Your task to perform on an android device: What's the weather going to be this weekend? Image 0: 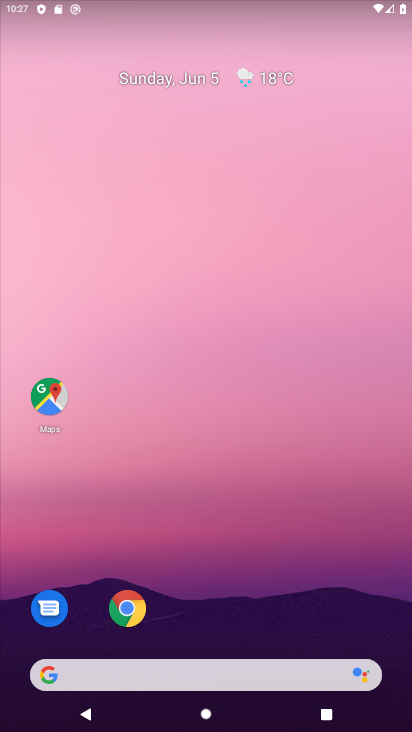
Step 0: click (147, 669)
Your task to perform on an android device: What's the weather going to be this weekend? Image 1: 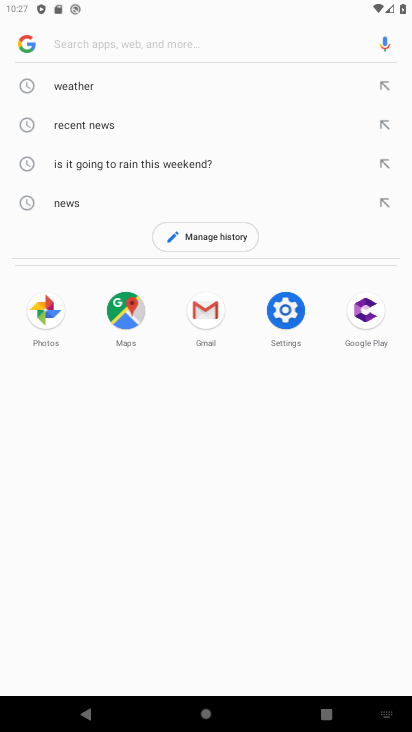
Step 1: type "what's the weather going to be this weekend"
Your task to perform on an android device: What's the weather going to be this weekend? Image 2: 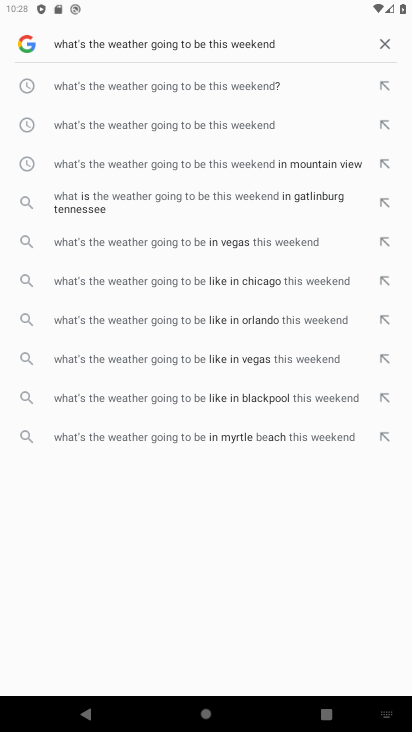
Step 2: click (248, 88)
Your task to perform on an android device: What's the weather going to be this weekend? Image 3: 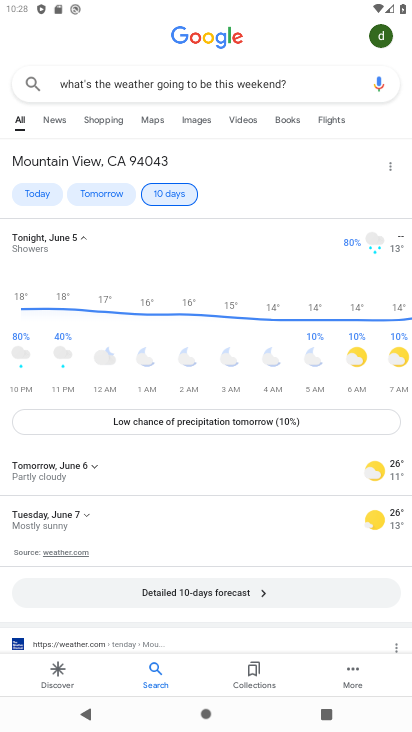
Step 3: click (207, 594)
Your task to perform on an android device: What's the weather going to be this weekend? Image 4: 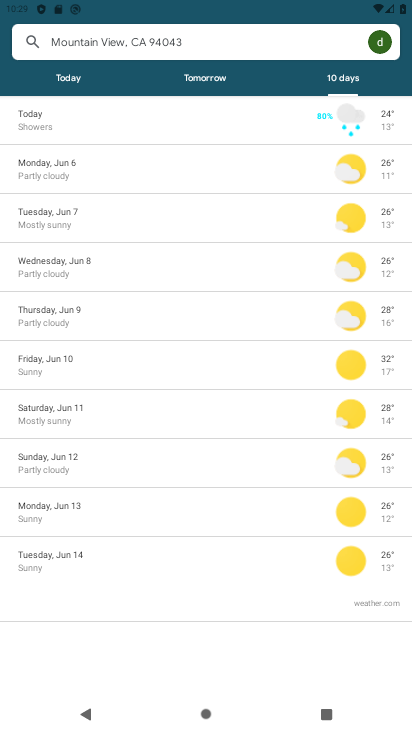
Step 4: task complete